Your task to perform on an android device: Open notification settings Image 0: 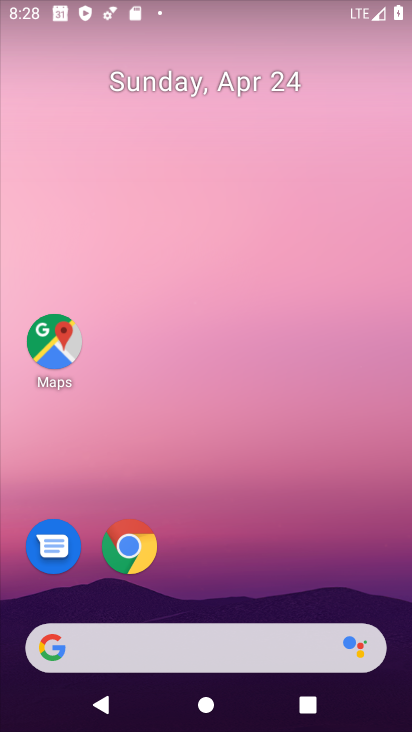
Step 0: drag from (215, 555) to (202, 40)
Your task to perform on an android device: Open notification settings Image 1: 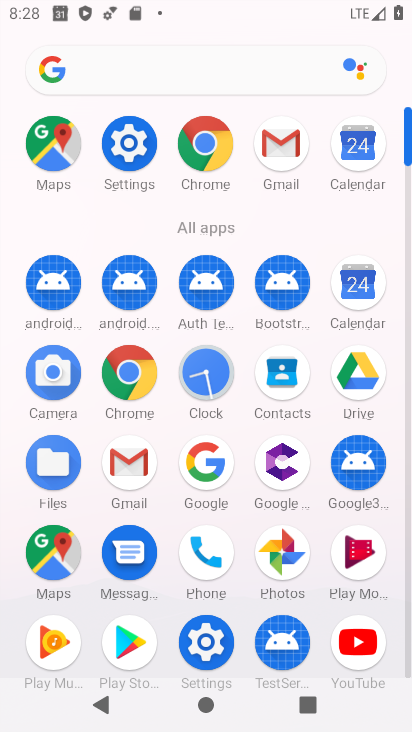
Step 1: click (125, 164)
Your task to perform on an android device: Open notification settings Image 2: 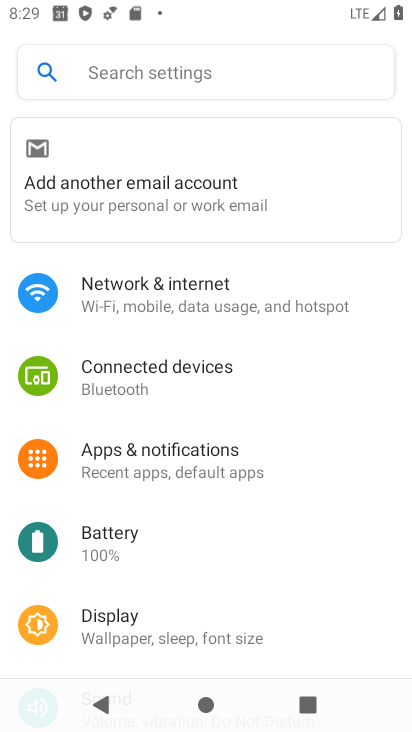
Step 2: click (205, 465)
Your task to perform on an android device: Open notification settings Image 3: 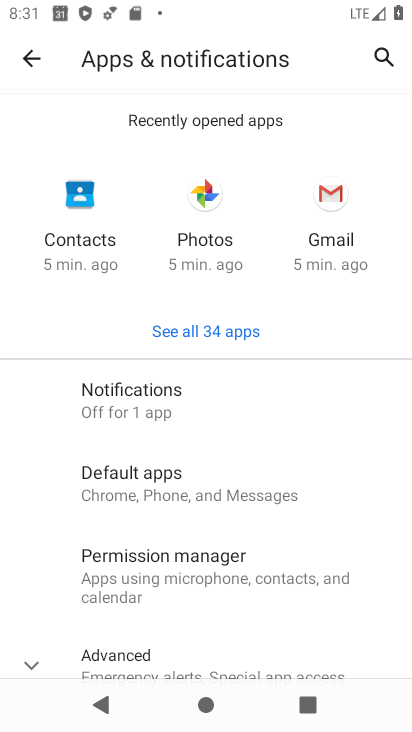
Step 3: task complete